Your task to perform on an android device: Do I have any events tomorrow? Image 0: 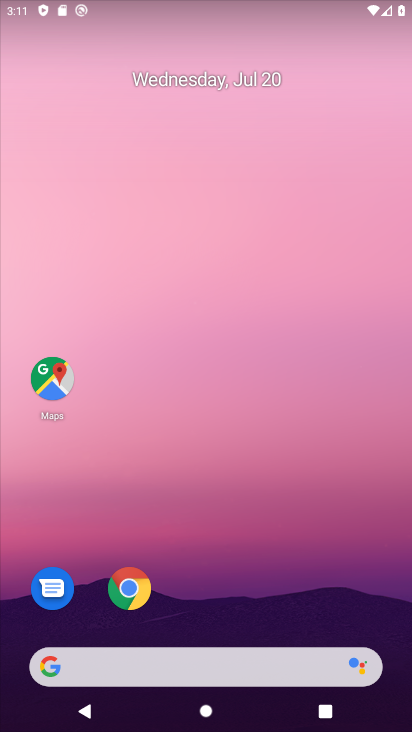
Step 0: drag from (220, 600) to (249, 150)
Your task to perform on an android device: Do I have any events tomorrow? Image 1: 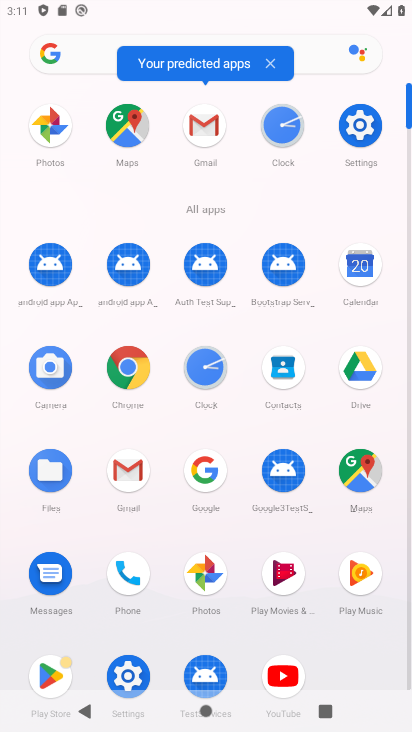
Step 1: click (369, 266)
Your task to perform on an android device: Do I have any events tomorrow? Image 2: 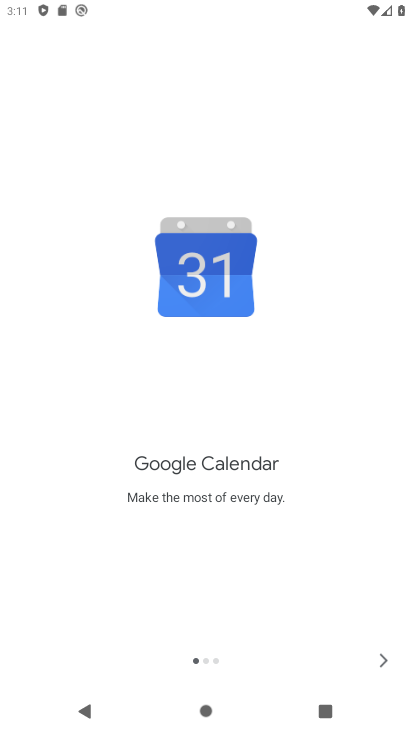
Step 2: click (386, 667)
Your task to perform on an android device: Do I have any events tomorrow? Image 3: 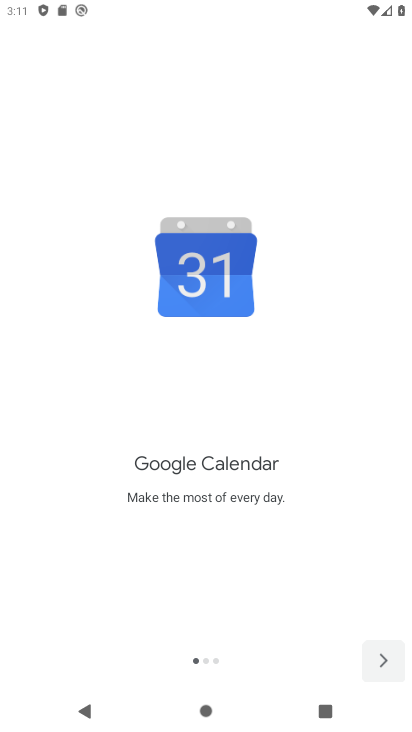
Step 3: click (386, 667)
Your task to perform on an android device: Do I have any events tomorrow? Image 4: 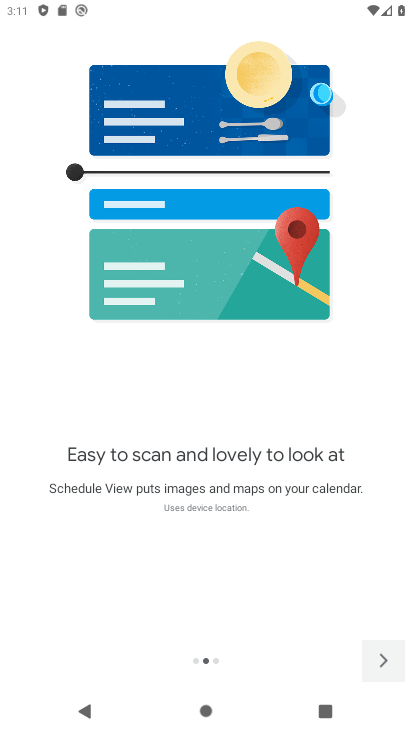
Step 4: click (384, 667)
Your task to perform on an android device: Do I have any events tomorrow? Image 5: 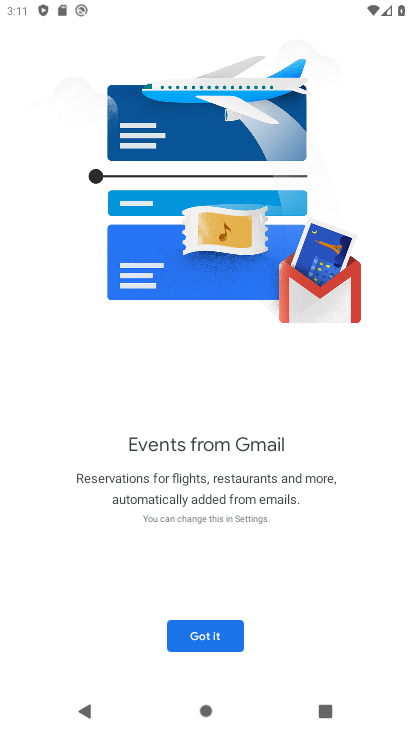
Step 5: click (195, 641)
Your task to perform on an android device: Do I have any events tomorrow? Image 6: 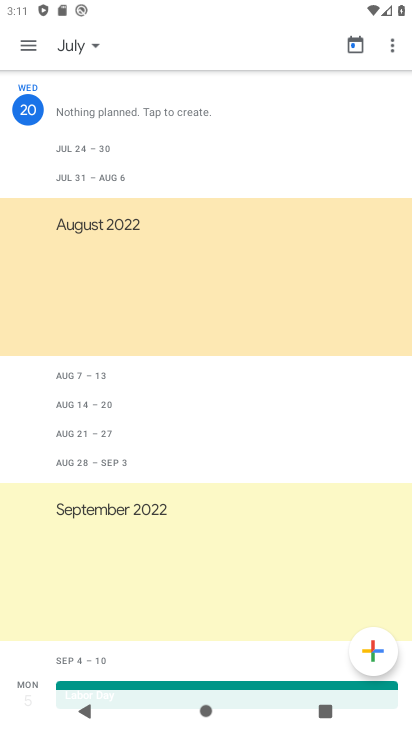
Step 6: click (82, 48)
Your task to perform on an android device: Do I have any events tomorrow? Image 7: 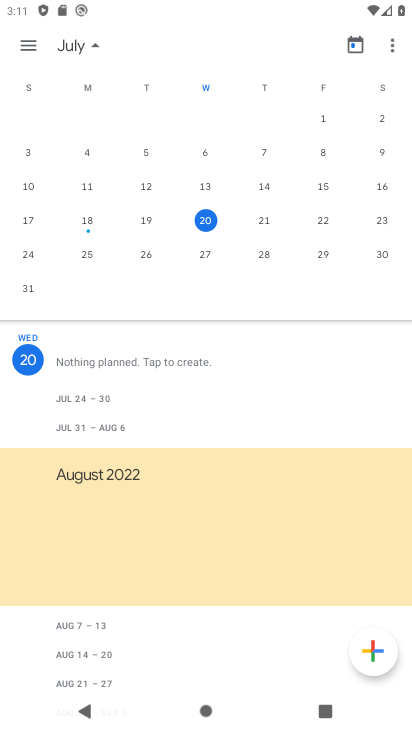
Step 7: click (269, 229)
Your task to perform on an android device: Do I have any events tomorrow? Image 8: 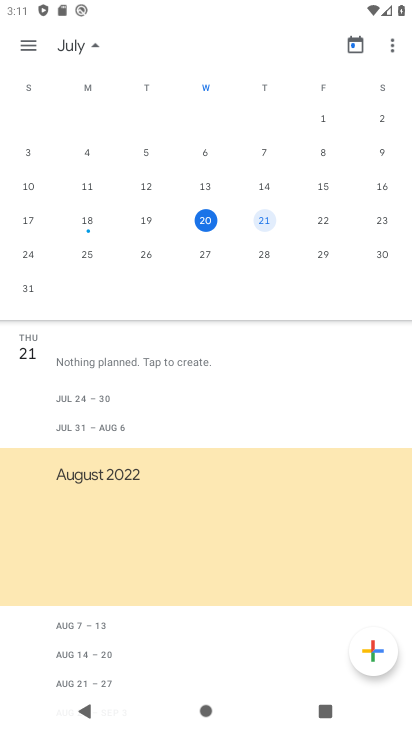
Step 8: task complete